Your task to perform on an android device: Show me popular games on the Play Store Image 0: 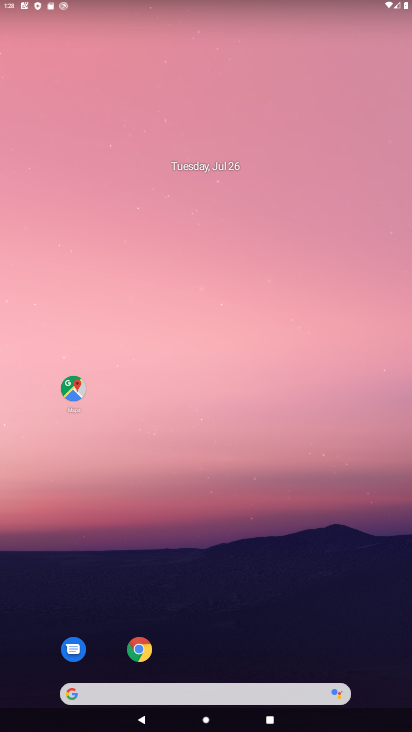
Step 0: press home button
Your task to perform on an android device: Show me popular games on the Play Store Image 1: 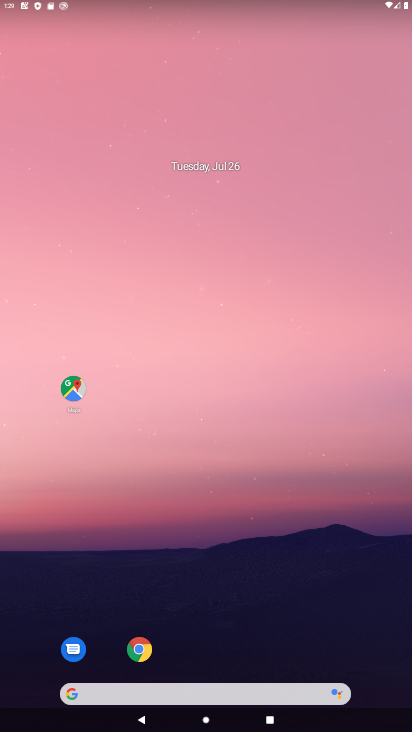
Step 1: drag from (251, 658) to (273, 5)
Your task to perform on an android device: Show me popular games on the Play Store Image 2: 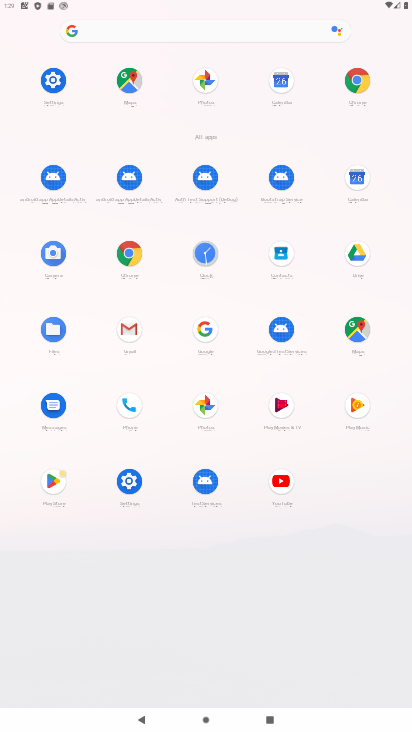
Step 2: click (47, 481)
Your task to perform on an android device: Show me popular games on the Play Store Image 3: 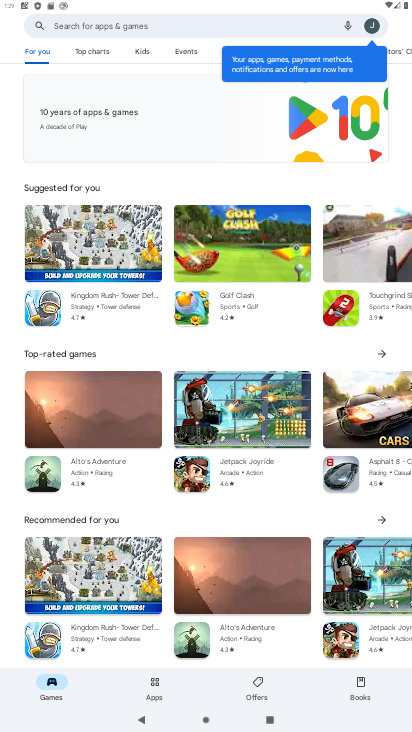
Step 3: task complete